Your task to perform on an android device: check out phone information Image 0: 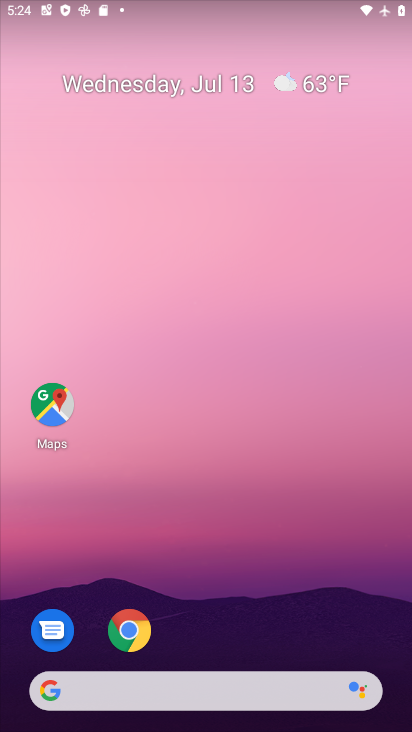
Step 0: press home button
Your task to perform on an android device: check out phone information Image 1: 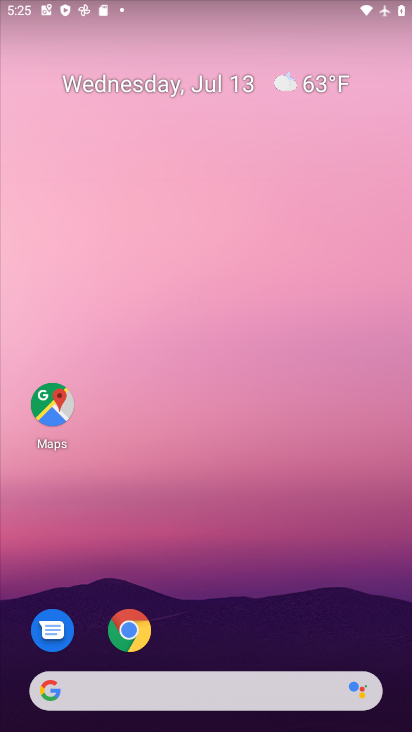
Step 1: drag from (261, 659) to (201, 140)
Your task to perform on an android device: check out phone information Image 2: 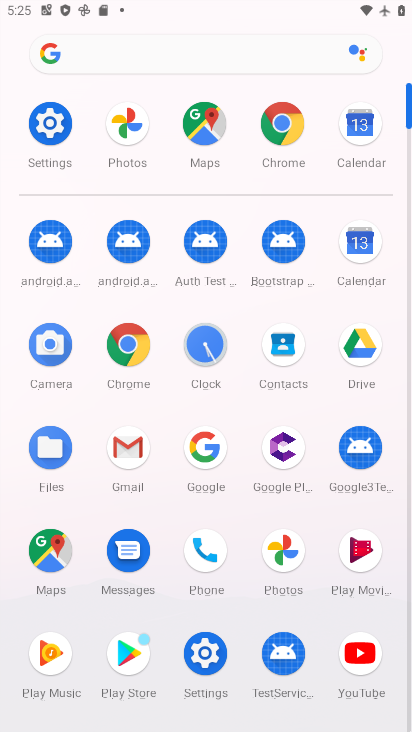
Step 2: click (31, 127)
Your task to perform on an android device: check out phone information Image 3: 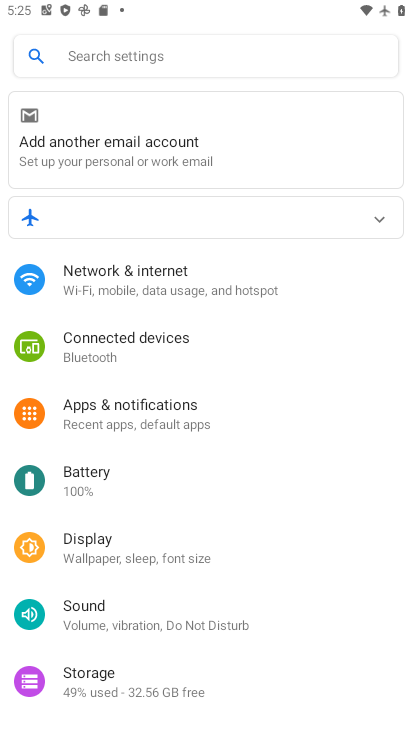
Step 3: drag from (324, 675) to (280, 13)
Your task to perform on an android device: check out phone information Image 4: 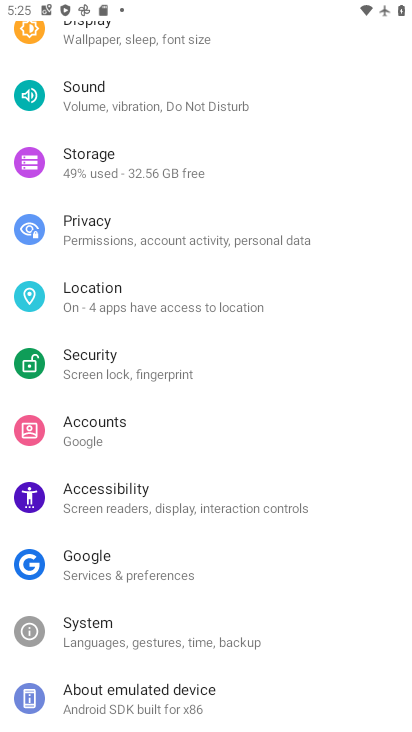
Step 4: click (119, 692)
Your task to perform on an android device: check out phone information Image 5: 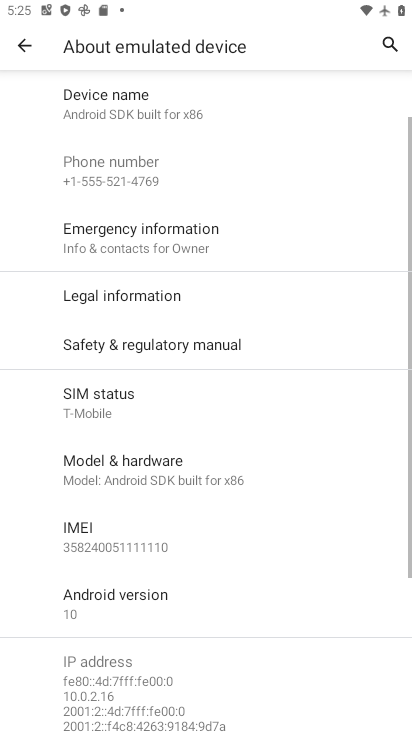
Step 5: task complete